Your task to perform on an android device: Open ESPN.com Image 0: 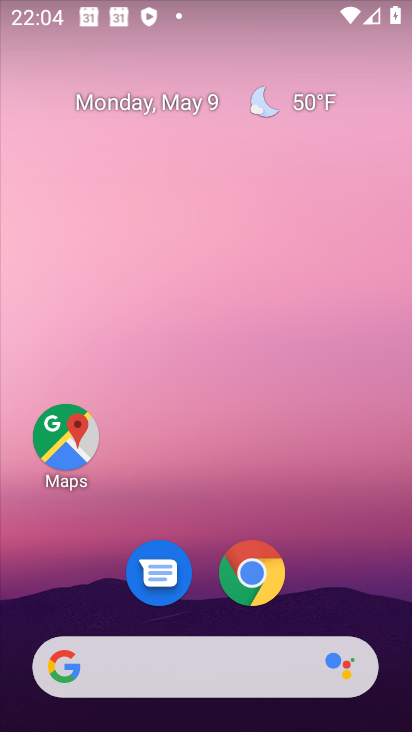
Step 0: click (251, 576)
Your task to perform on an android device: Open ESPN.com Image 1: 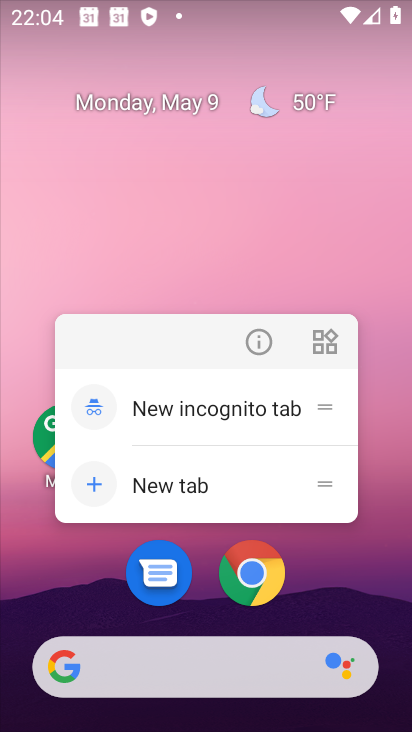
Step 1: click (255, 576)
Your task to perform on an android device: Open ESPN.com Image 2: 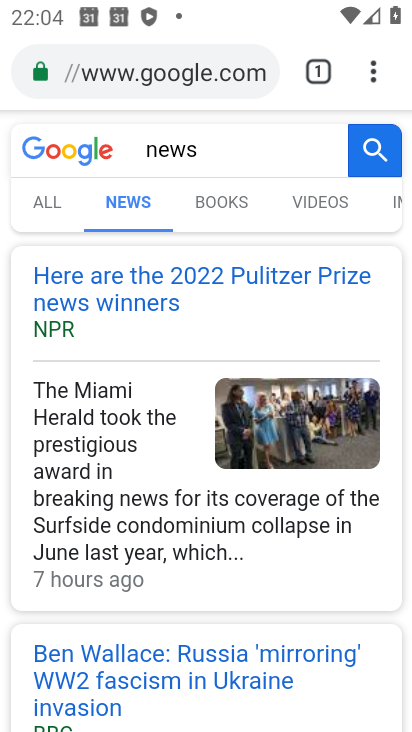
Step 2: click (206, 79)
Your task to perform on an android device: Open ESPN.com Image 3: 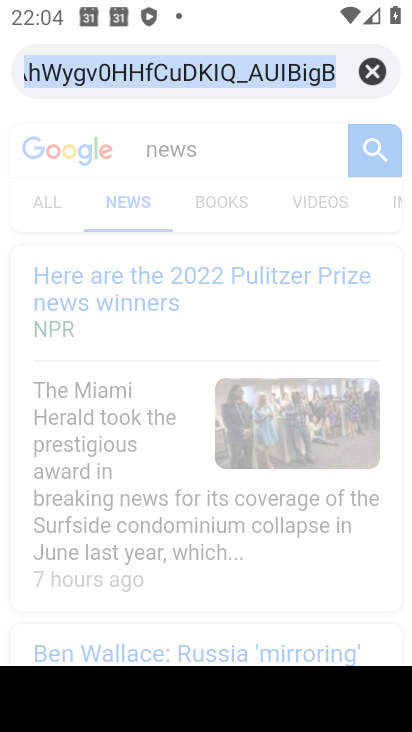
Step 3: type "espn.com"
Your task to perform on an android device: Open ESPN.com Image 4: 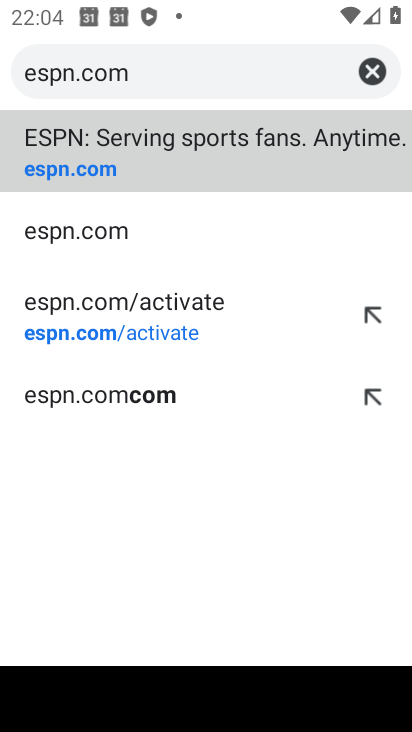
Step 4: click (125, 156)
Your task to perform on an android device: Open ESPN.com Image 5: 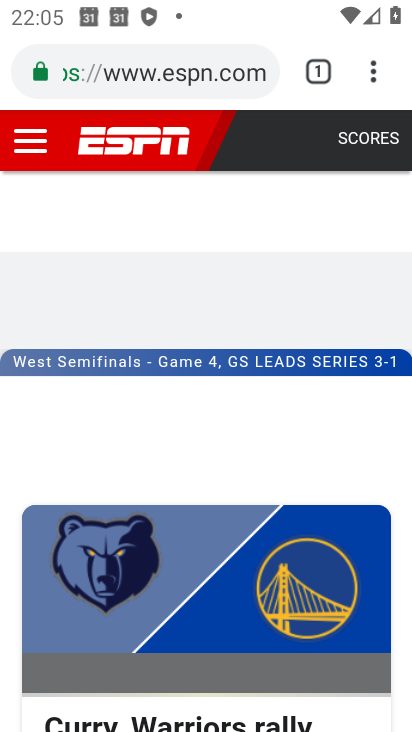
Step 5: task complete